Your task to perform on an android device: Do I have any events today? Image 0: 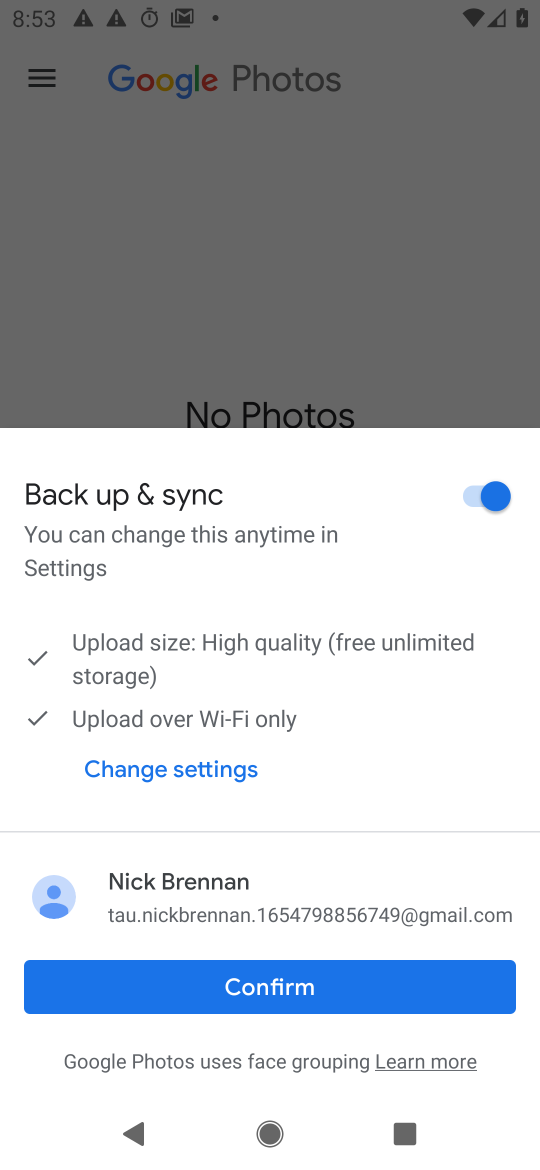
Step 0: press back button
Your task to perform on an android device: Do I have any events today? Image 1: 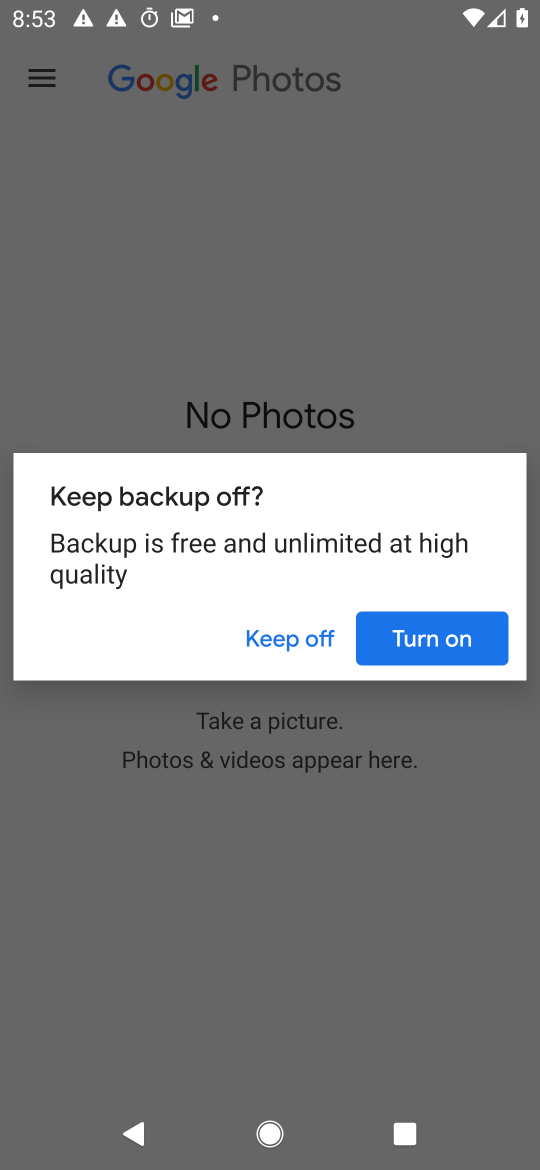
Step 1: press home button
Your task to perform on an android device: Do I have any events today? Image 2: 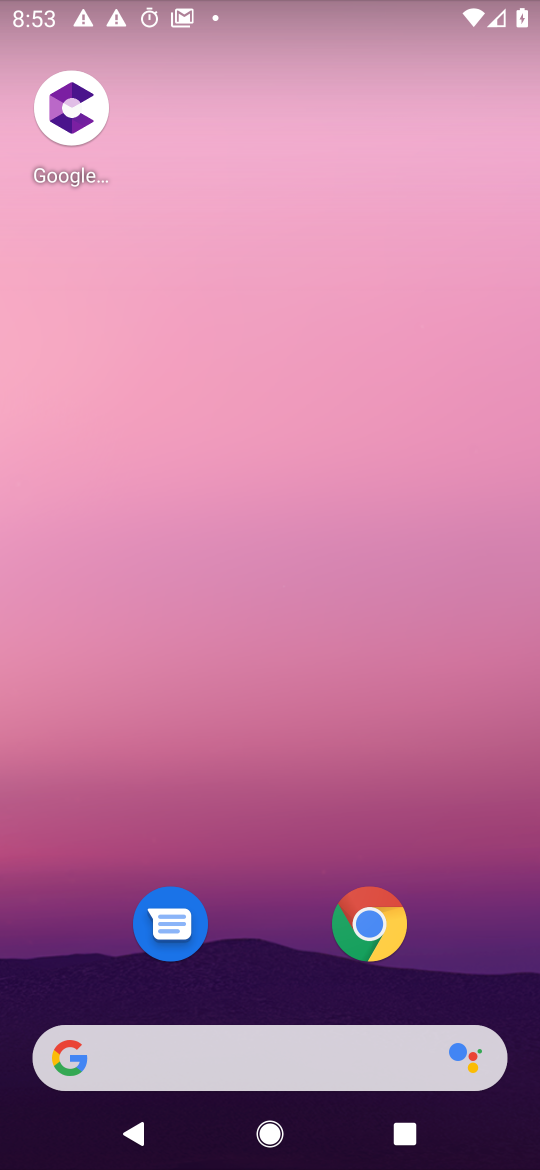
Step 2: drag from (251, 680) to (368, 104)
Your task to perform on an android device: Do I have any events today? Image 3: 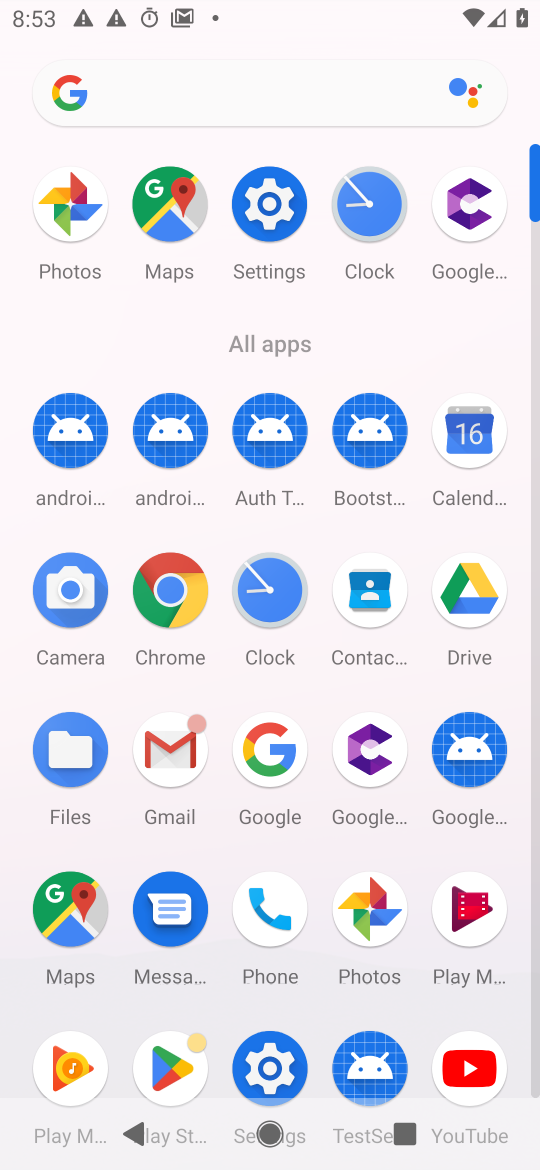
Step 3: click (471, 418)
Your task to perform on an android device: Do I have any events today? Image 4: 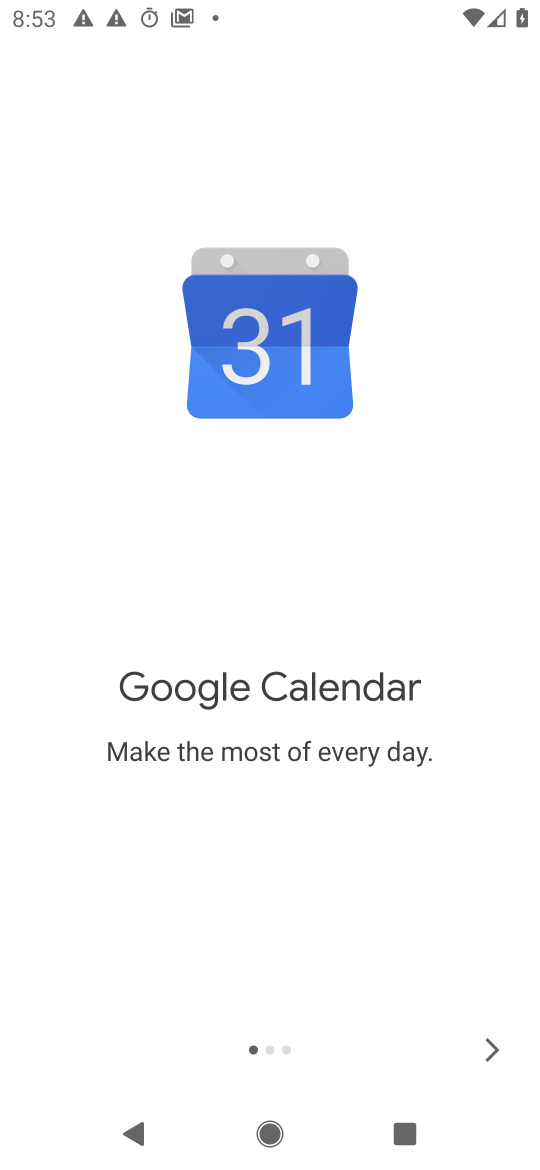
Step 4: click (478, 1052)
Your task to perform on an android device: Do I have any events today? Image 5: 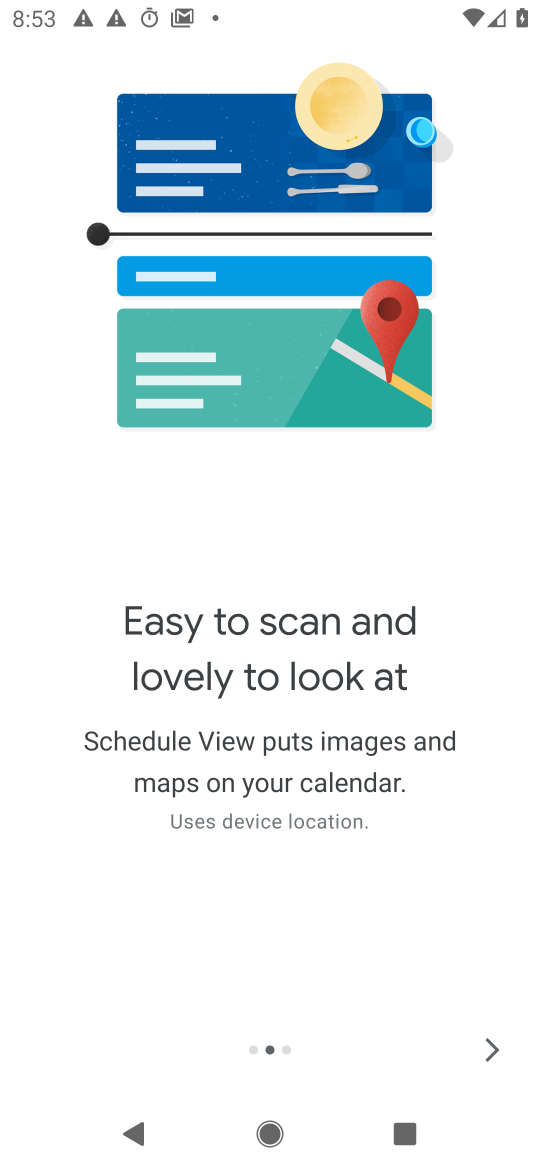
Step 5: click (473, 1040)
Your task to perform on an android device: Do I have any events today? Image 6: 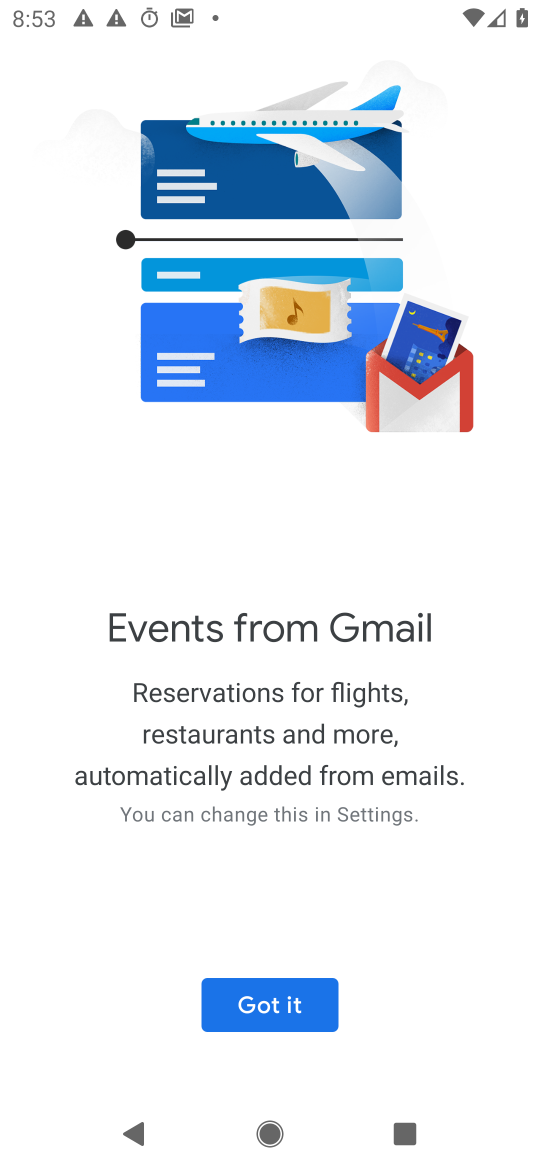
Step 6: click (319, 1001)
Your task to perform on an android device: Do I have any events today? Image 7: 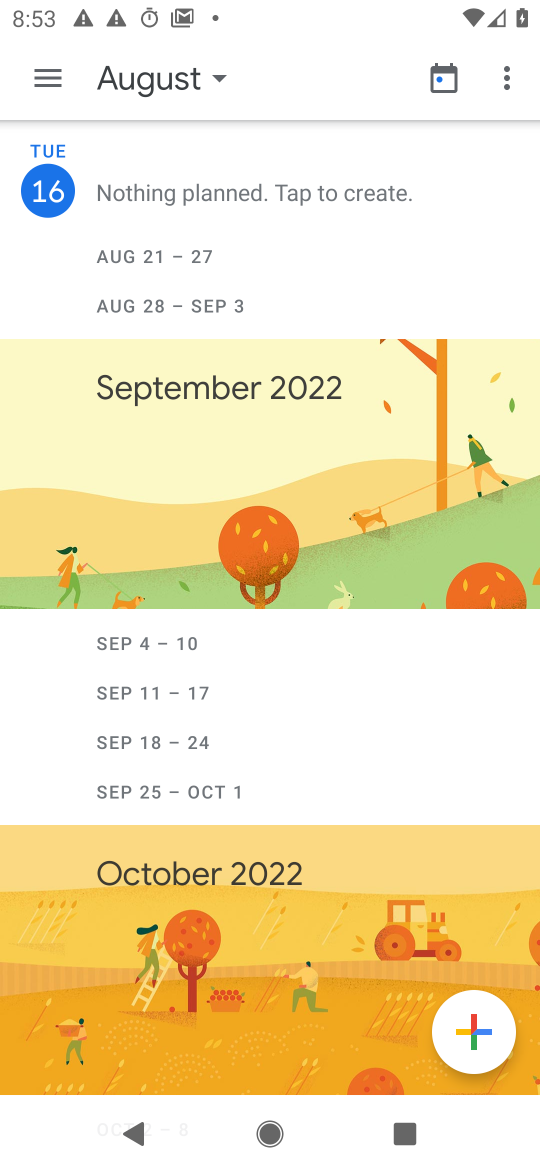
Step 7: task complete